Your task to perform on an android device: When is my next appointment? Image 0: 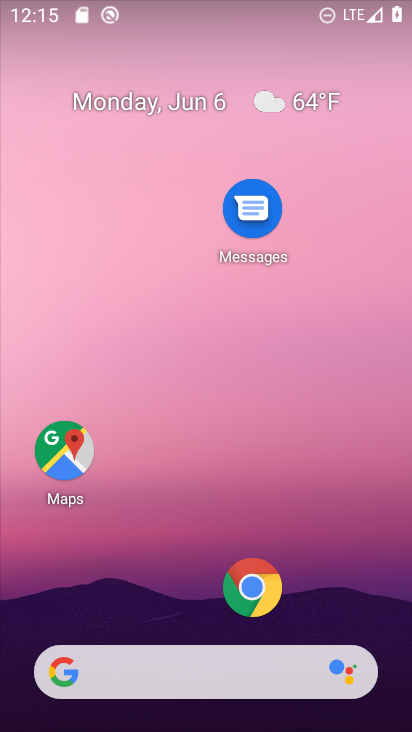
Step 0: click (173, 103)
Your task to perform on an android device: When is my next appointment? Image 1: 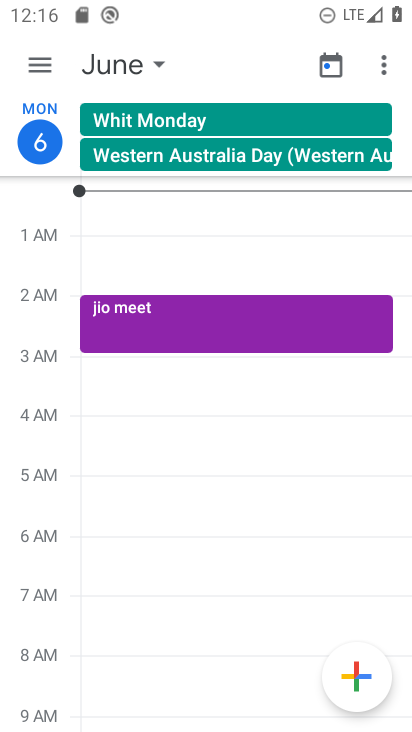
Step 1: task complete